Your task to perform on an android device: Open settings on Google Maps Image 0: 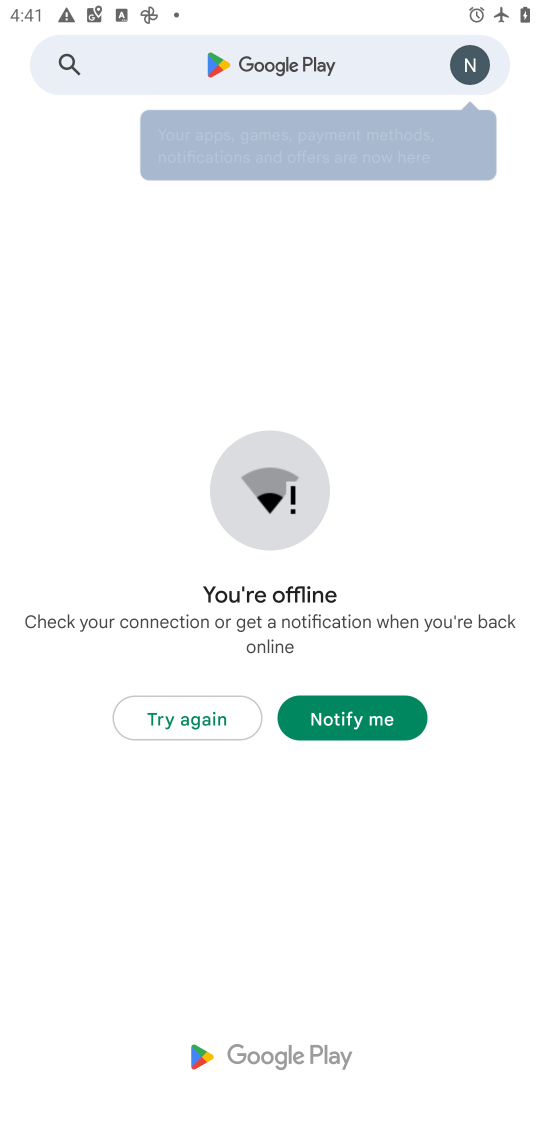
Step 0: press home button
Your task to perform on an android device: Open settings on Google Maps Image 1: 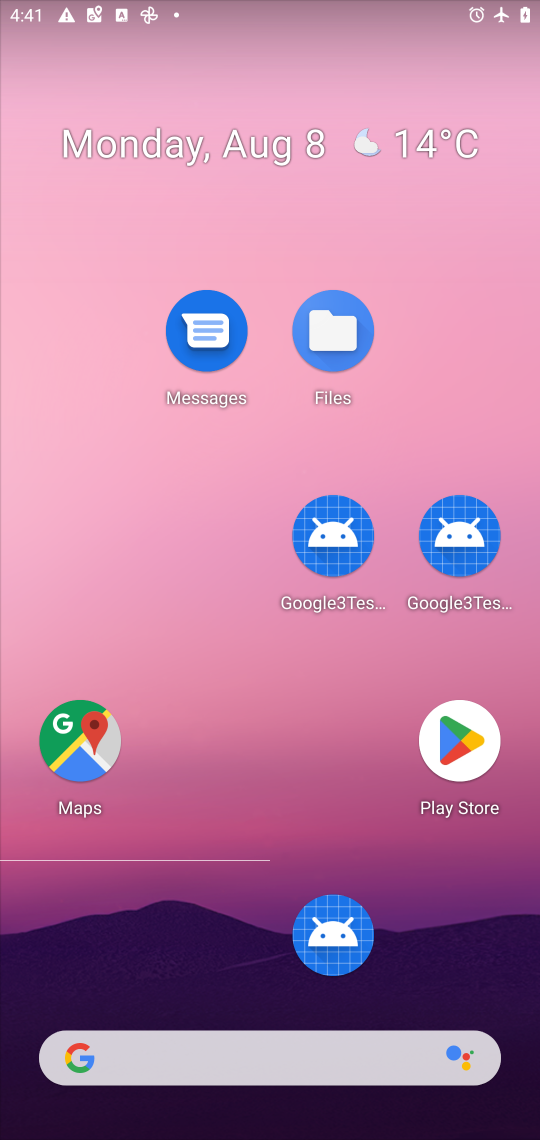
Step 1: drag from (310, 1044) to (264, 520)
Your task to perform on an android device: Open settings on Google Maps Image 2: 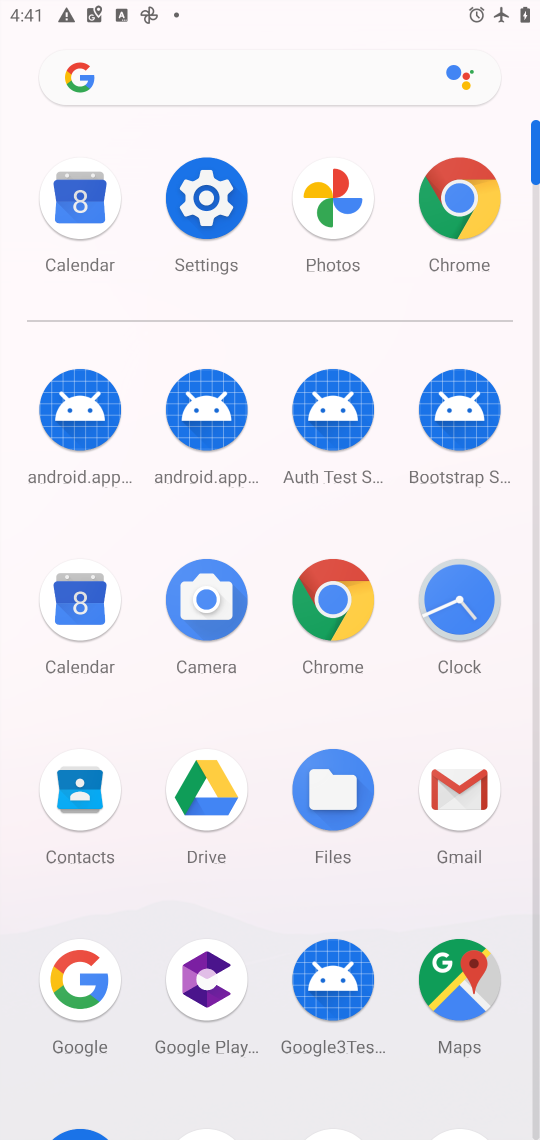
Step 2: click (473, 969)
Your task to perform on an android device: Open settings on Google Maps Image 3: 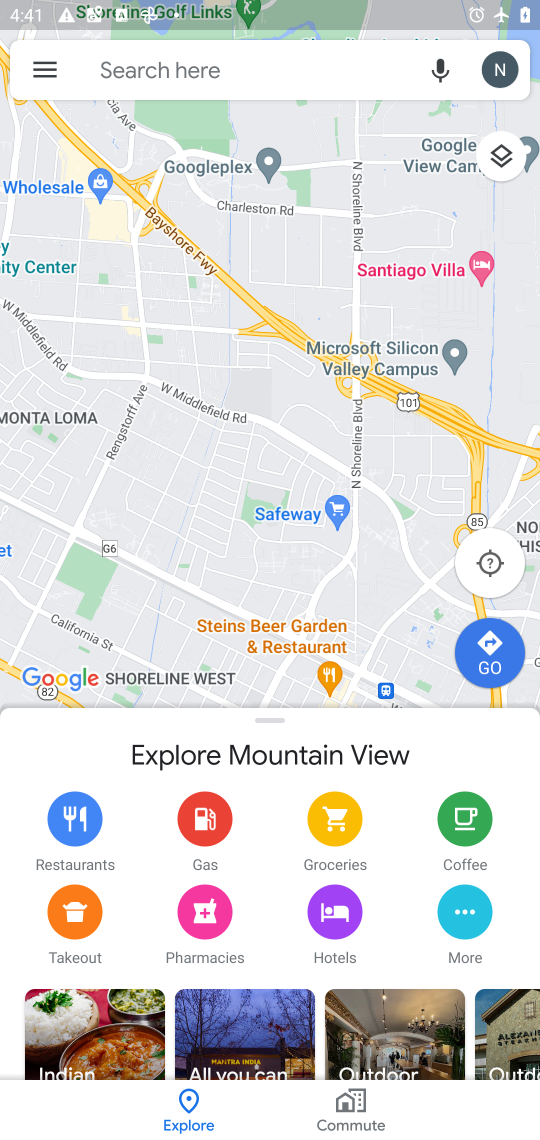
Step 3: click (502, 62)
Your task to perform on an android device: Open settings on Google Maps Image 4: 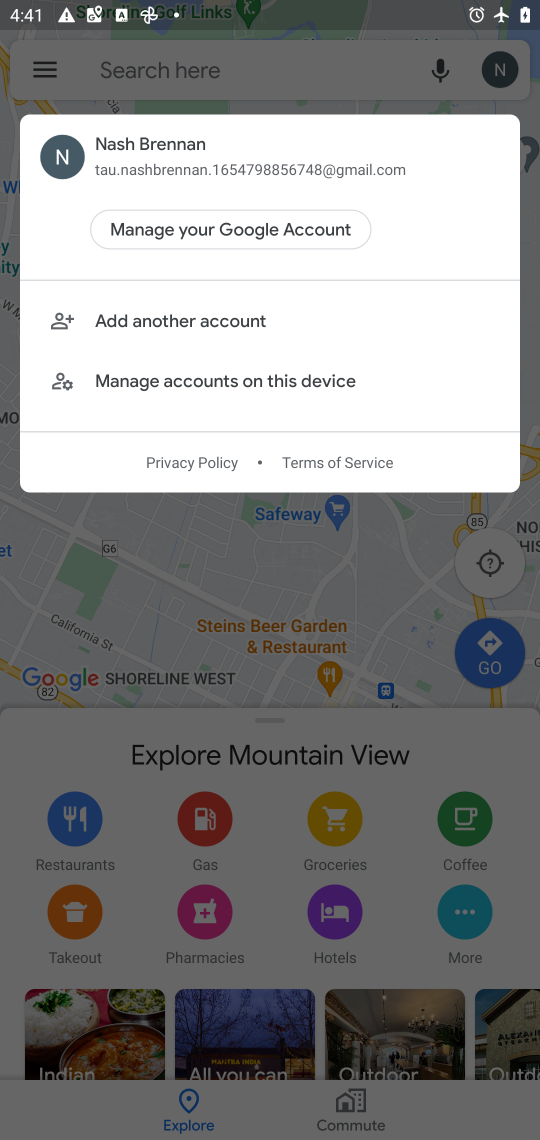
Step 4: click (333, 587)
Your task to perform on an android device: Open settings on Google Maps Image 5: 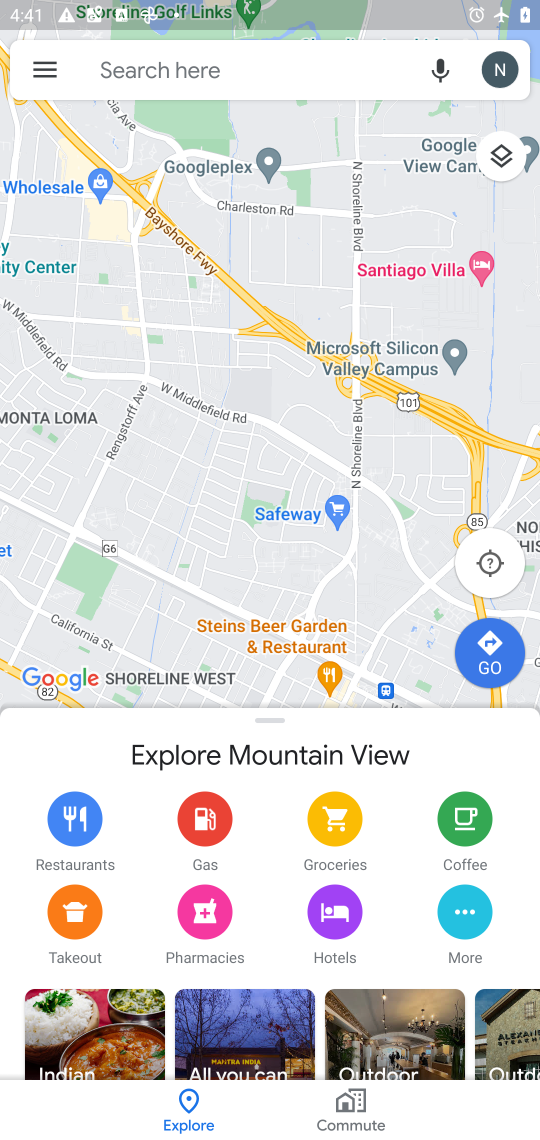
Step 5: click (48, 60)
Your task to perform on an android device: Open settings on Google Maps Image 6: 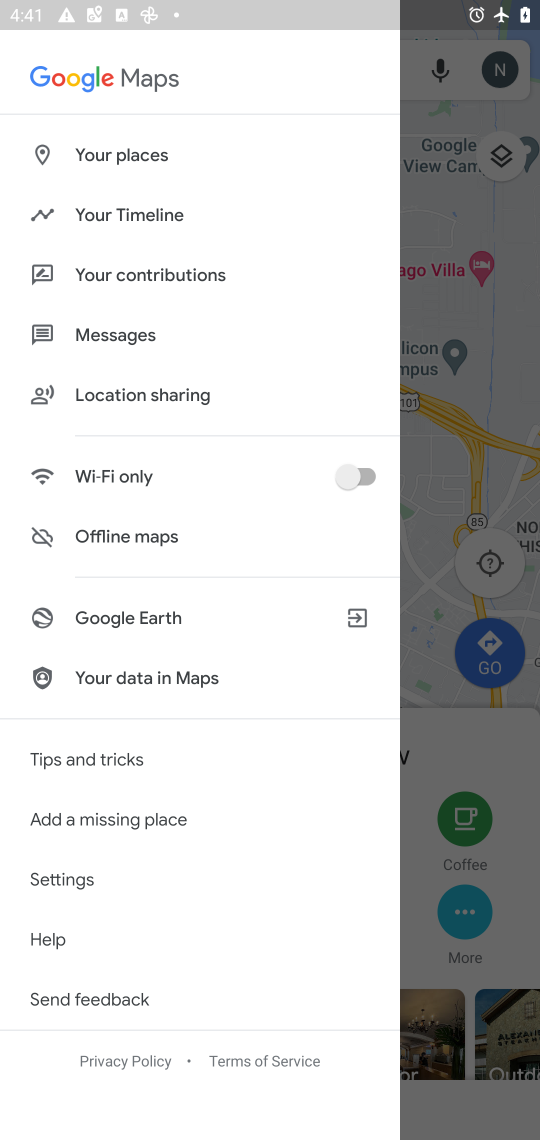
Step 6: click (108, 208)
Your task to perform on an android device: Open settings on Google Maps Image 7: 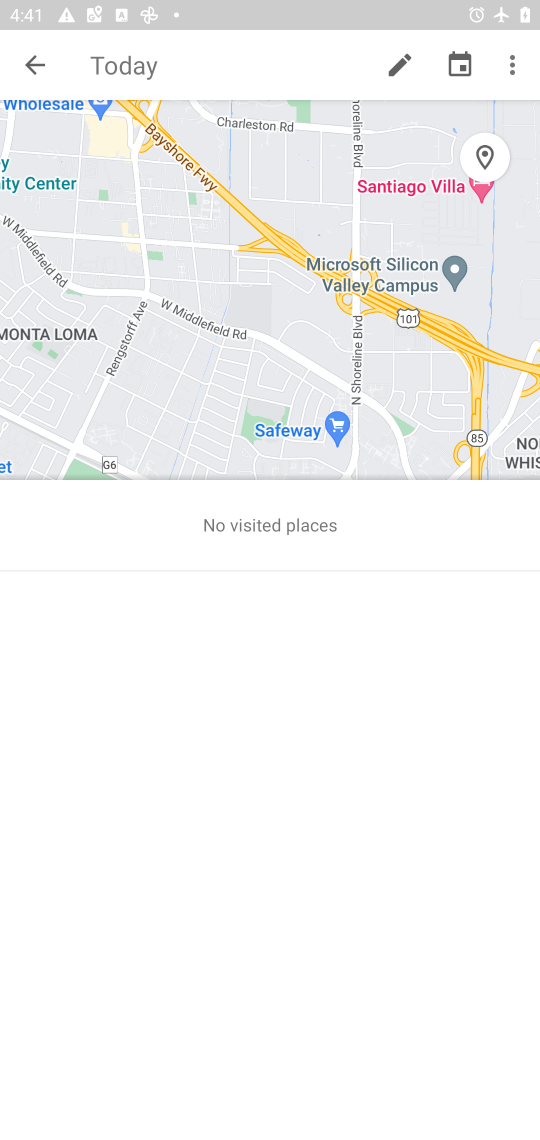
Step 7: click (509, 62)
Your task to perform on an android device: Open settings on Google Maps Image 8: 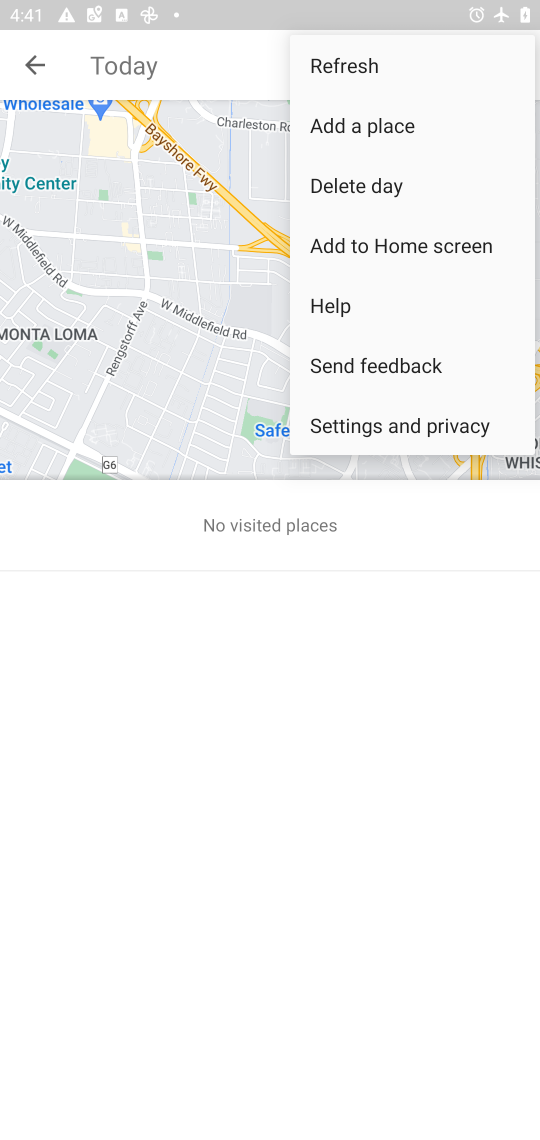
Step 8: click (347, 425)
Your task to perform on an android device: Open settings on Google Maps Image 9: 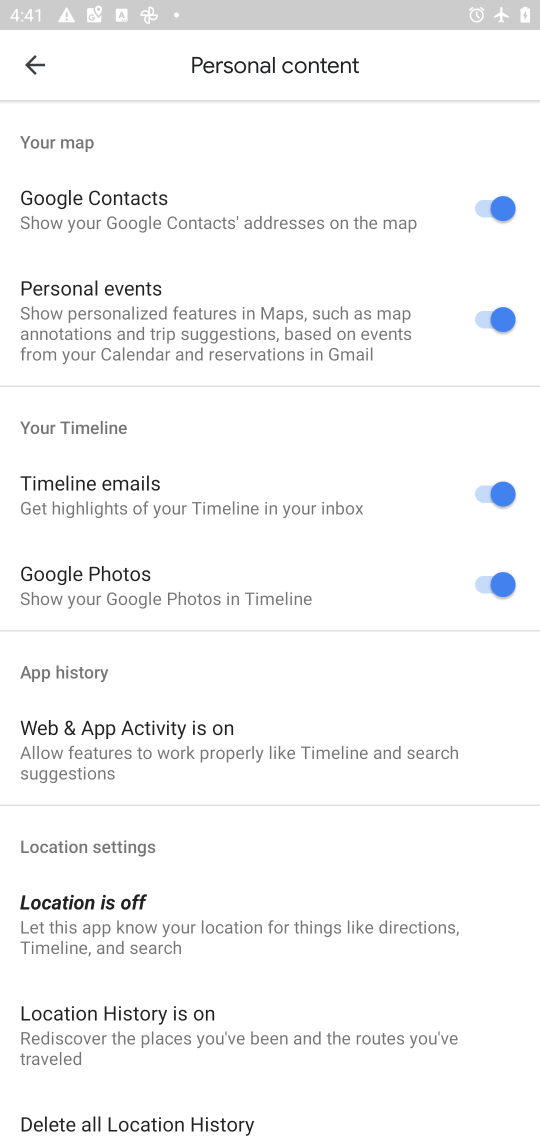
Step 9: task complete